Your task to perform on an android device: Search for vegetarian restaurants on Maps Image 0: 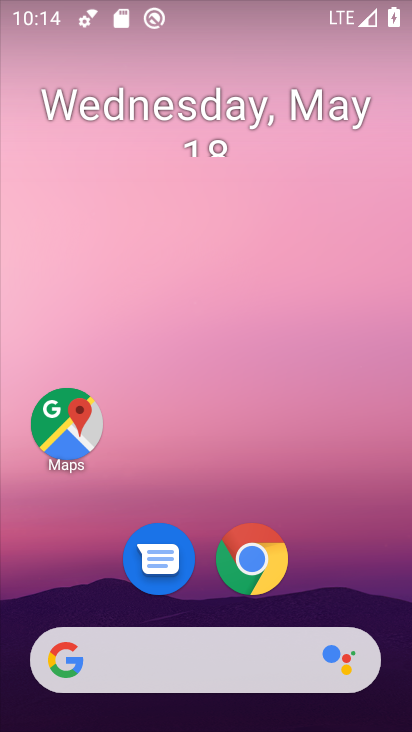
Step 0: click (66, 431)
Your task to perform on an android device: Search for vegetarian restaurants on Maps Image 1: 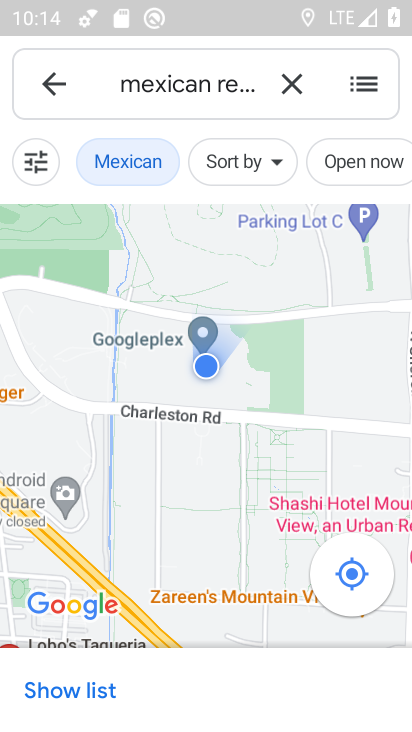
Step 1: click (164, 84)
Your task to perform on an android device: Search for vegetarian restaurants on Maps Image 2: 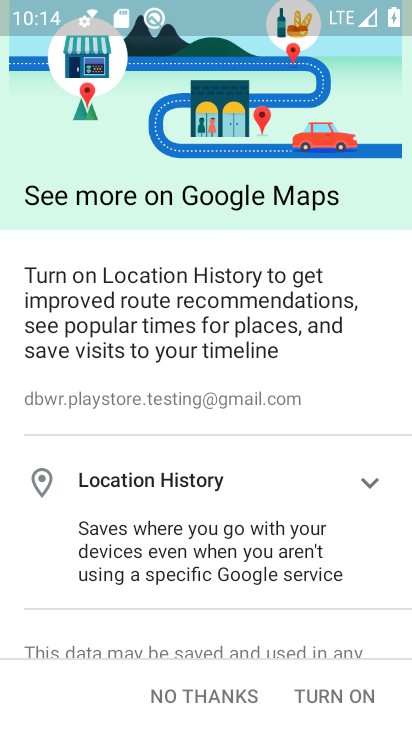
Step 2: click (177, 706)
Your task to perform on an android device: Search for vegetarian restaurants on Maps Image 3: 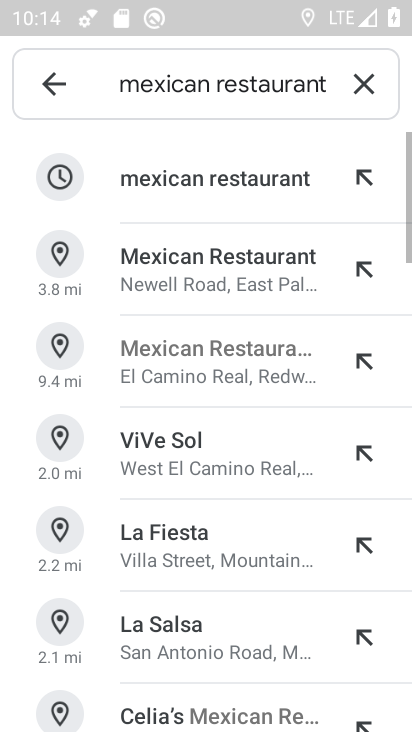
Step 3: click (167, 88)
Your task to perform on an android device: Search for vegetarian restaurants on Maps Image 4: 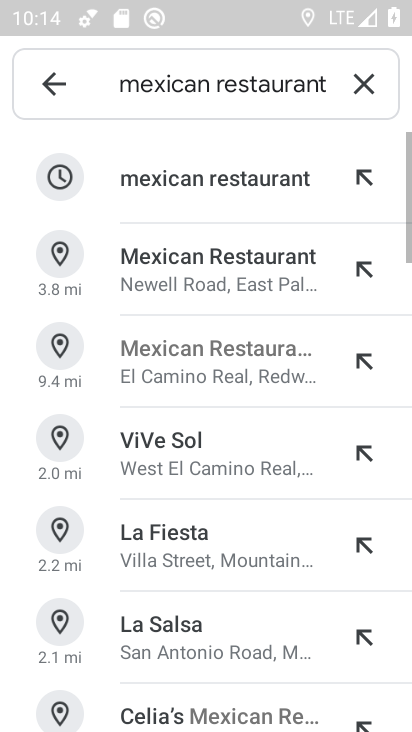
Step 4: click (167, 88)
Your task to perform on an android device: Search for vegetarian restaurants on Maps Image 5: 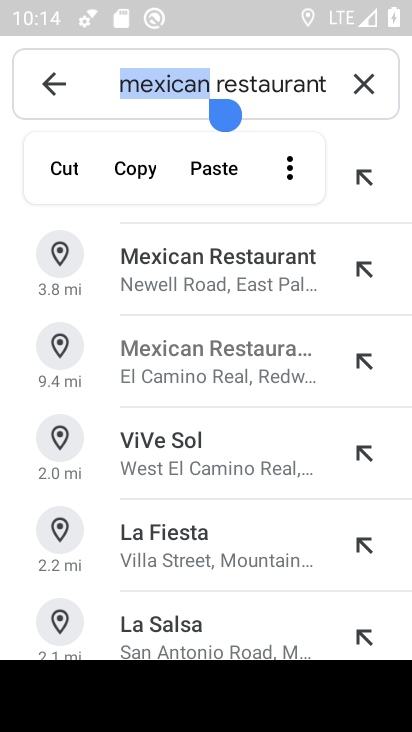
Step 5: type "vegetarian"
Your task to perform on an android device: Search for vegetarian restaurants on Maps Image 6: 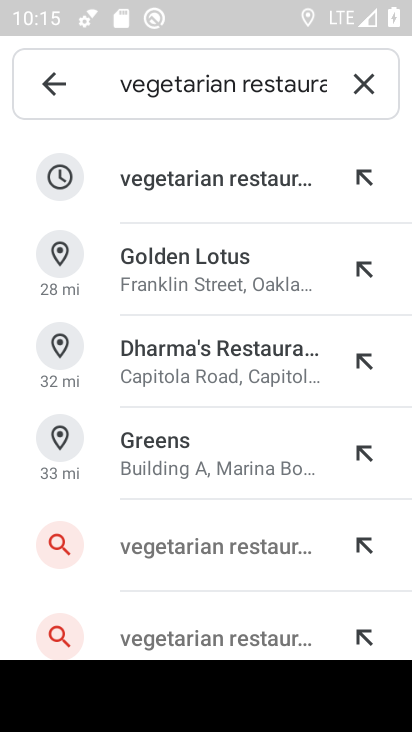
Step 6: click (209, 174)
Your task to perform on an android device: Search for vegetarian restaurants on Maps Image 7: 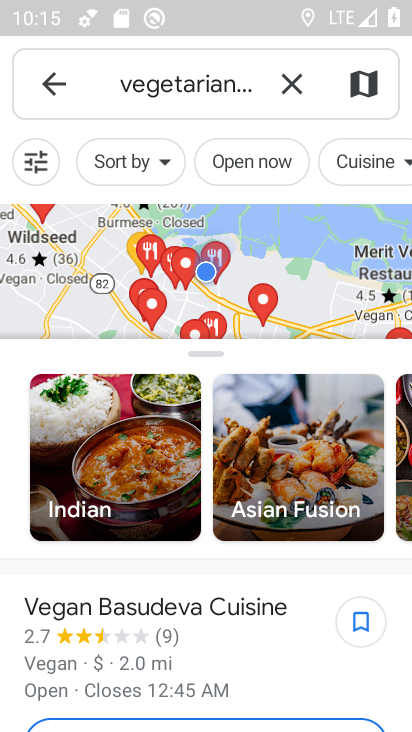
Step 7: task complete